Your task to perform on an android device: Play the last video I watched on Youtube Image 0: 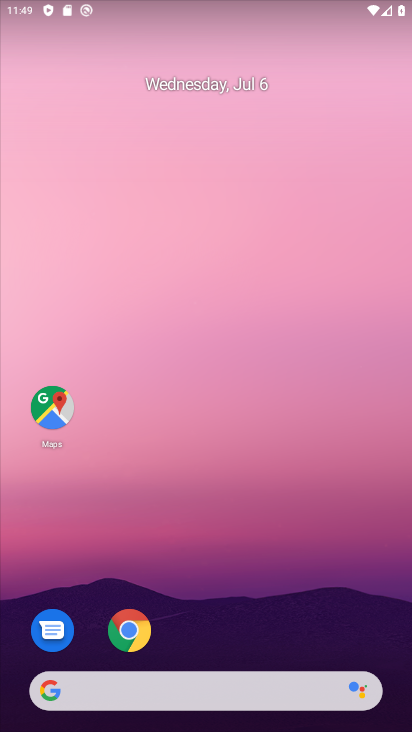
Step 0: drag from (206, 651) to (202, 45)
Your task to perform on an android device: Play the last video I watched on Youtube Image 1: 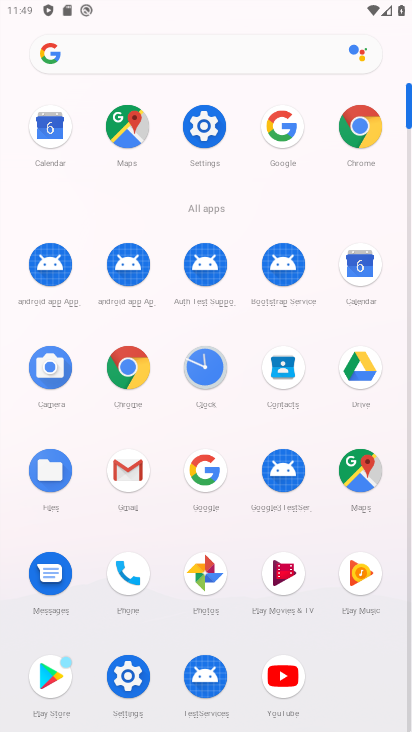
Step 1: click (280, 679)
Your task to perform on an android device: Play the last video I watched on Youtube Image 2: 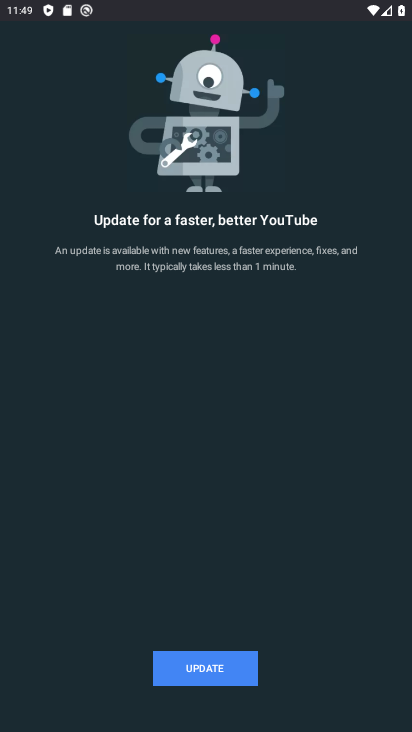
Step 2: click (221, 670)
Your task to perform on an android device: Play the last video I watched on Youtube Image 3: 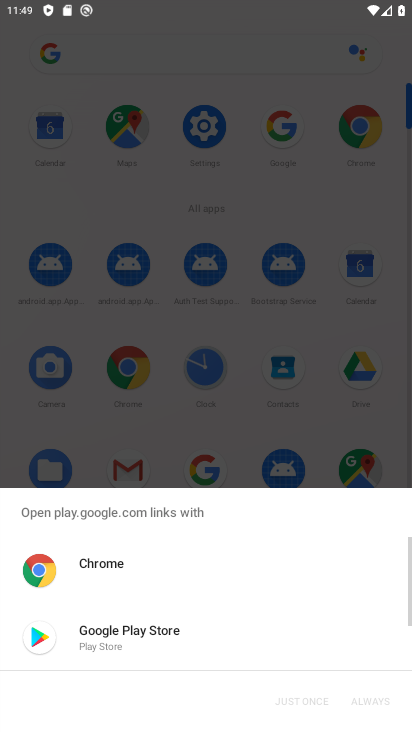
Step 3: click (117, 652)
Your task to perform on an android device: Play the last video I watched on Youtube Image 4: 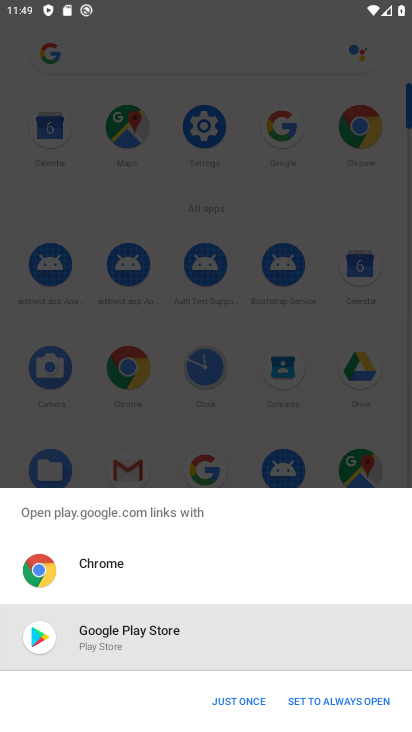
Step 4: click (322, 700)
Your task to perform on an android device: Play the last video I watched on Youtube Image 5: 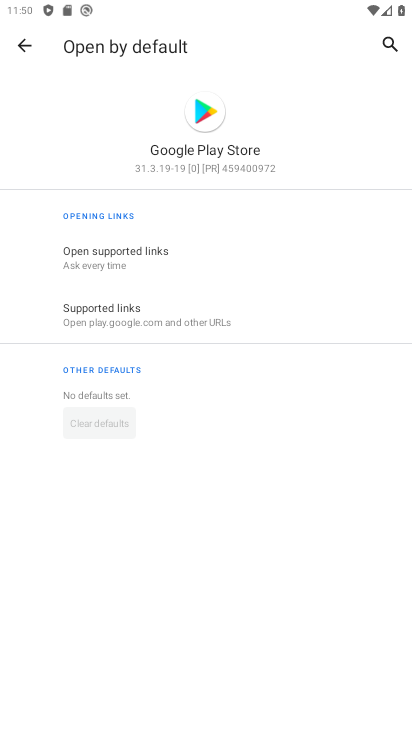
Step 5: click (119, 259)
Your task to perform on an android device: Play the last video I watched on Youtube Image 6: 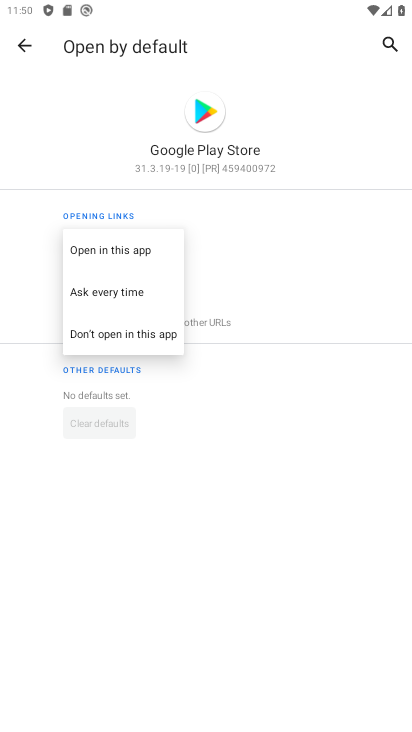
Step 6: click (123, 248)
Your task to perform on an android device: Play the last video I watched on Youtube Image 7: 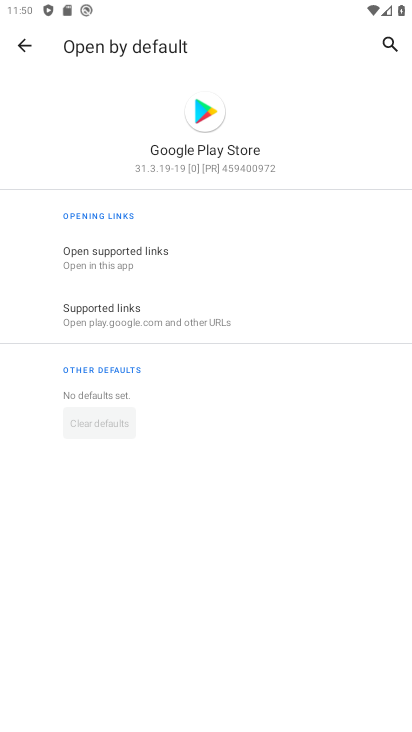
Step 7: click (25, 46)
Your task to perform on an android device: Play the last video I watched on Youtube Image 8: 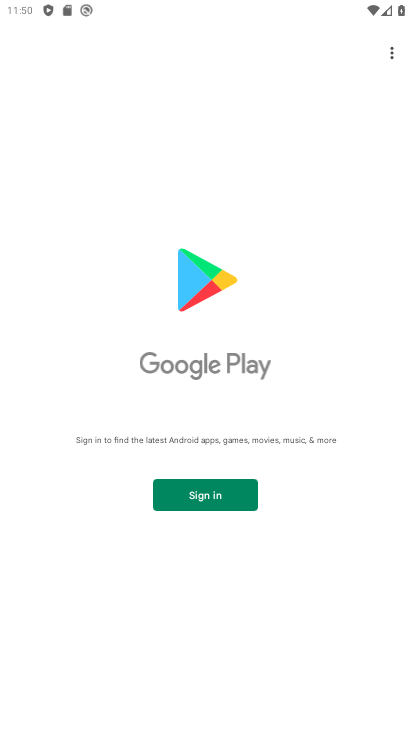
Step 8: click (206, 496)
Your task to perform on an android device: Play the last video I watched on Youtube Image 9: 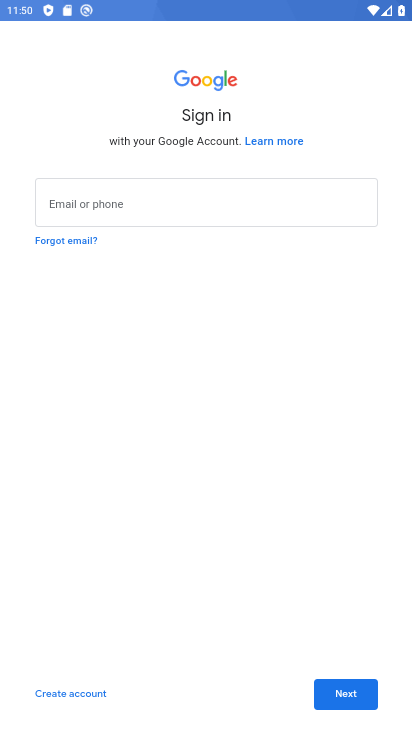
Step 9: task complete